Your task to perform on an android device: turn on translation in the chrome app Image 0: 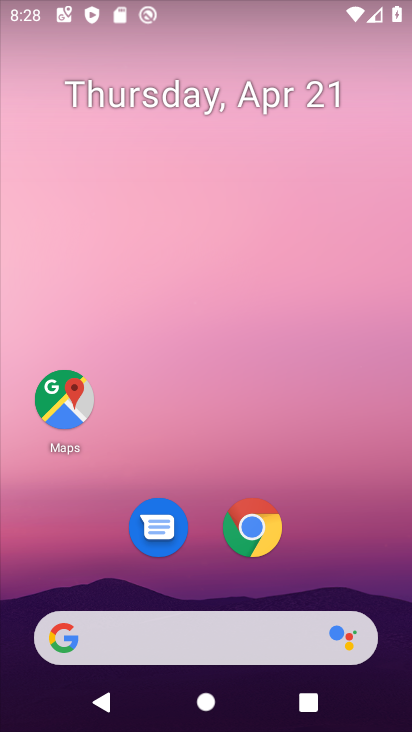
Step 0: click (276, 537)
Your task to perform on an android device: turn on translation in the chrome app Image 1: 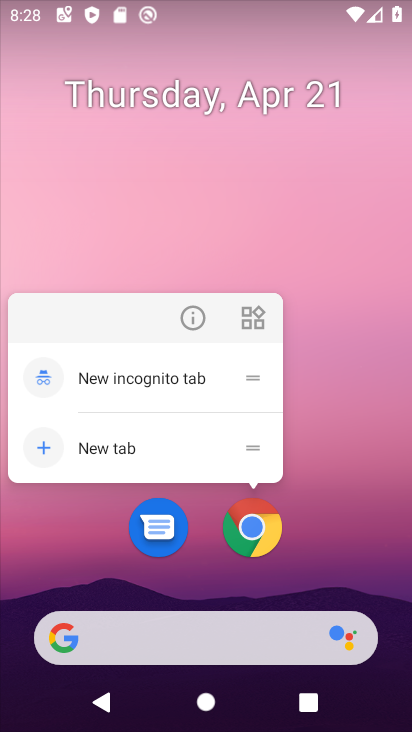
Step 1: click (276, 537)
Your task to perform on an android device: turn on translation in the chrome app Image 2: 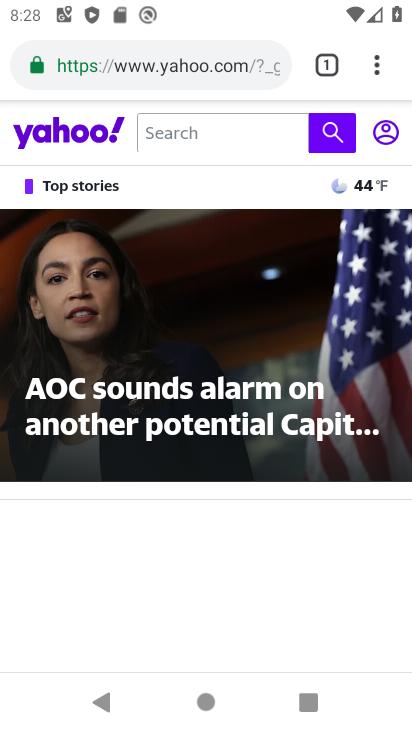
Step 2: click (379, 56)
Your task to perform on an android device: turn on translation in the chrome app Image 3: 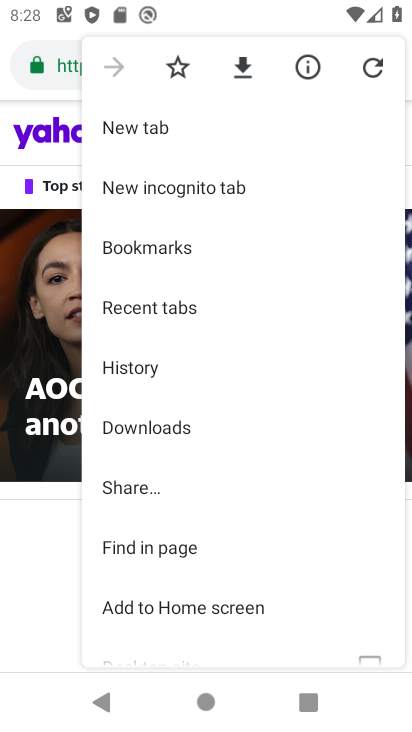
Step 3: task complete